Your task to perform on an android device: turn off notifications in google photos Image 0: 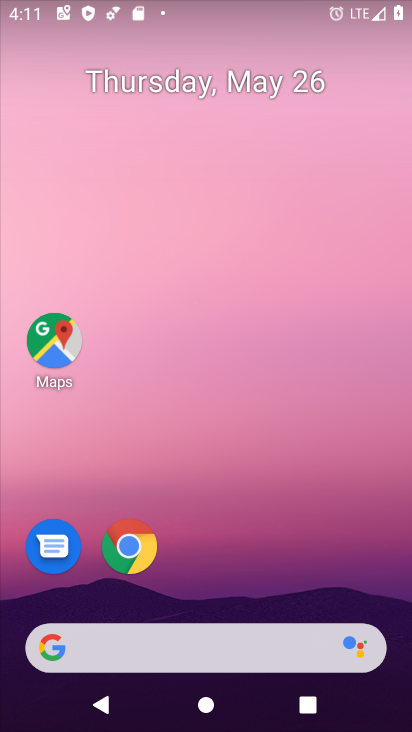
Step 0: drag from (210, 568) to (267, 66)
Your task to perform on an android device: turn off notifications in google photos Image 1: 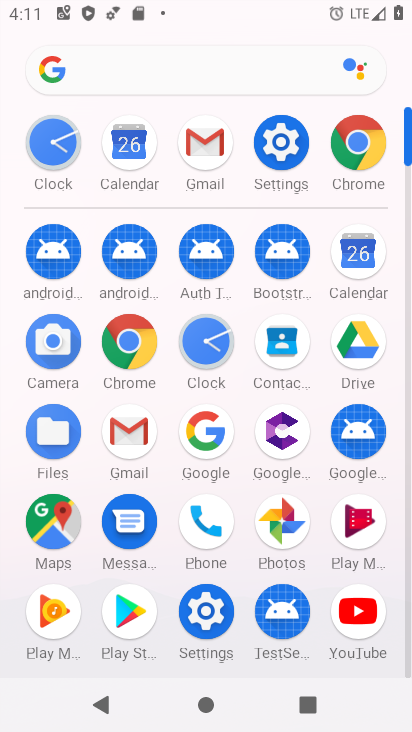
Step 1: click (271, 514)
Your task to perform on an android device: turn off notifications in google photos Image 2: 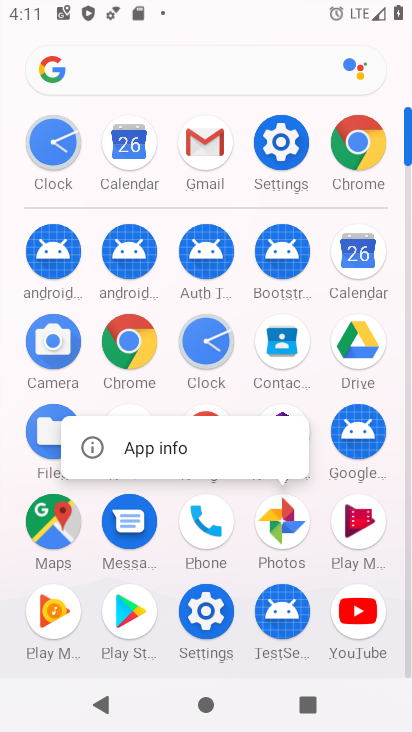
Step 2: click (97, 446)
Your task to perform on an android device: turn off notifications in google photos Image 3: 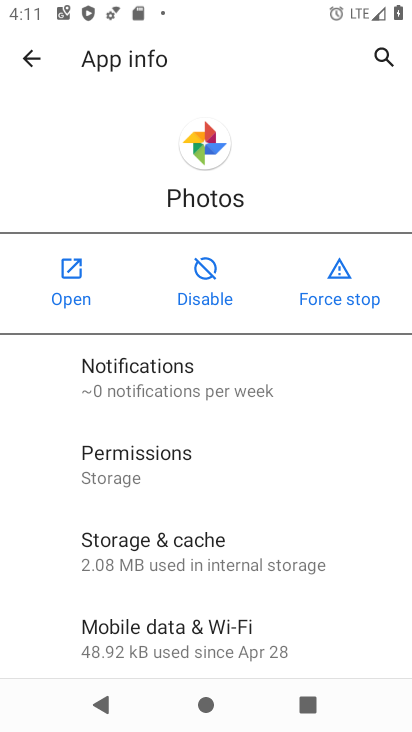
Step 3: click (163, 370)
Your task to perform on an android device: turn off notifications in google photos Image 4: 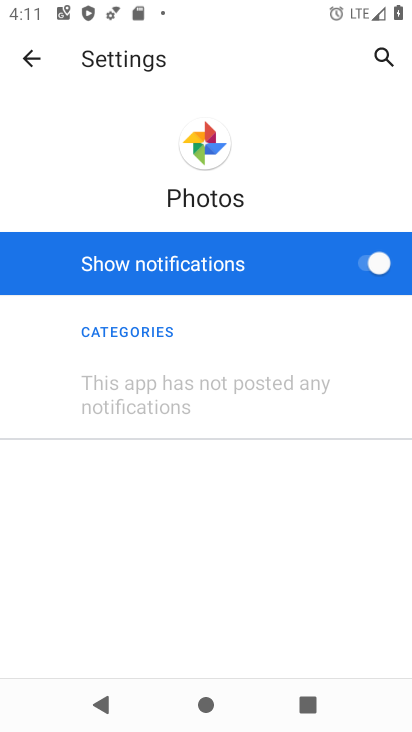
Step 4: click (382, 260)
Your task to perform on an android device: turn off notifications in google photos Image 5: 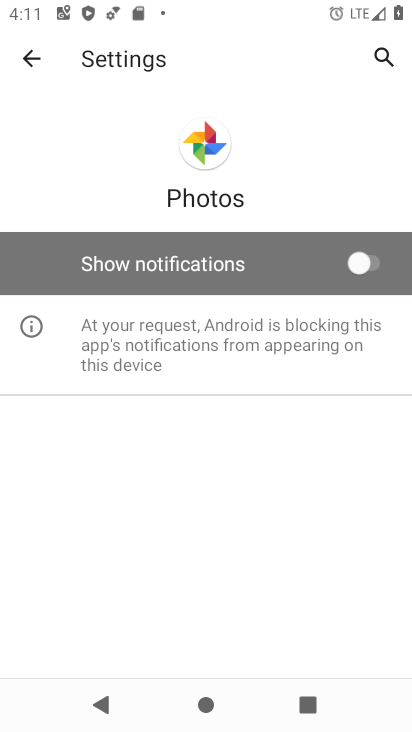
Step 5: task complete